Your task to perform on an android device: turn off improve location accuracy Image 0: 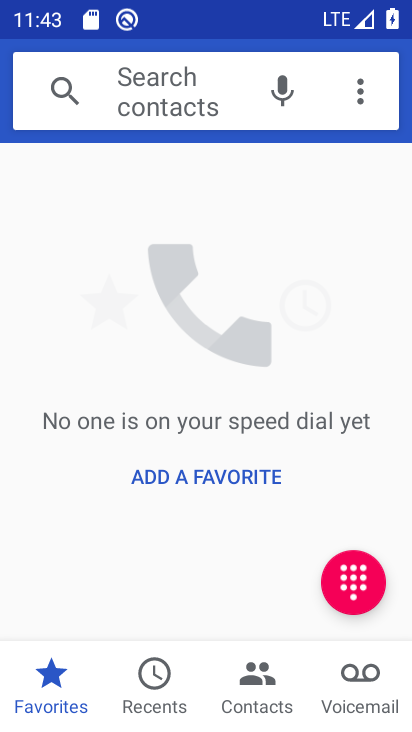
Step 0: press home button
Your task to perform on an android device: turn off improve location accuracy Image 1: 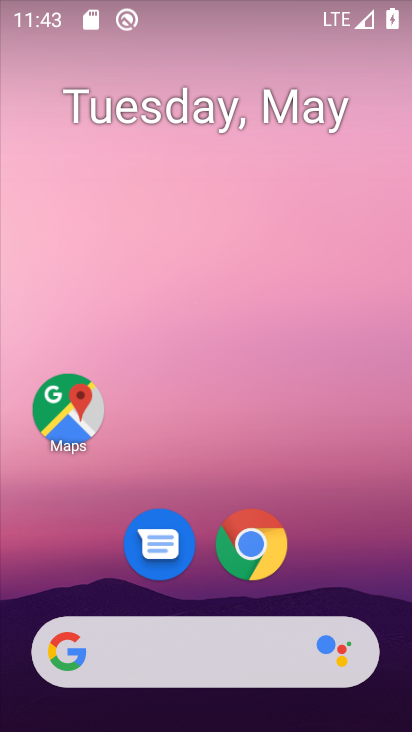
Step 1: drag from (203, 469) to (271, 134)
Your task to perform on an android device: turn off improve location accuracy Image 2: 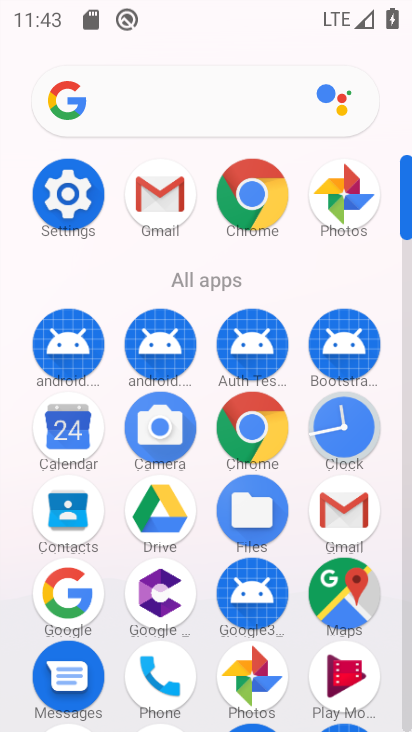
Step 2: drag from (205, 272) to (213, 125)
Your task to perform on an android device: turn off improve location accuracy Image 3: 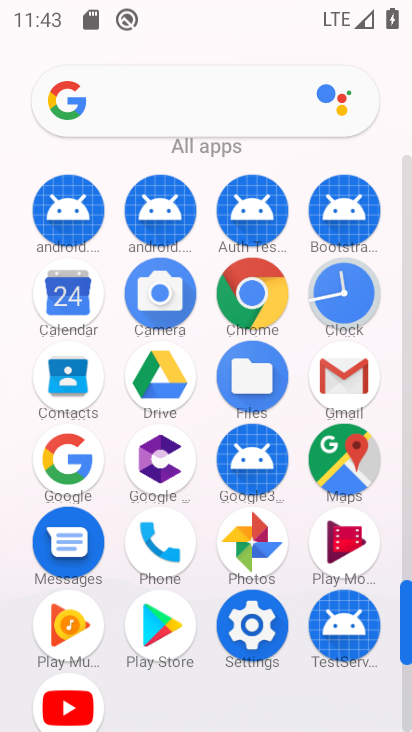
Step 3: click (246, 639)
Your task to perform on an android device: turn off improve location accuracy Image 4: 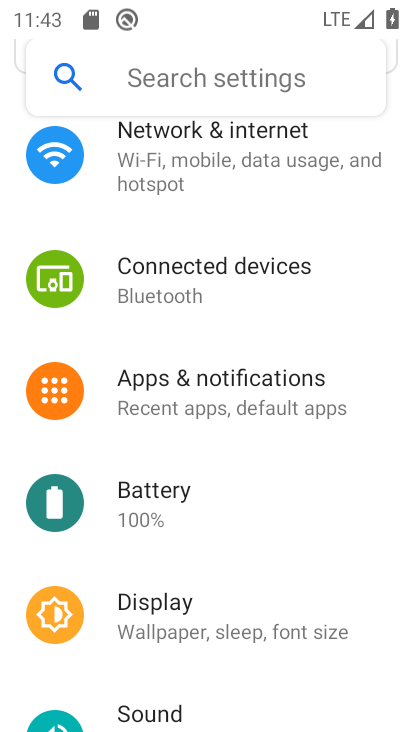
Step 4: drag from (107, 591) to (328, 189)
Your task to perform on an android device: turn off improve location accuracy Image 5: 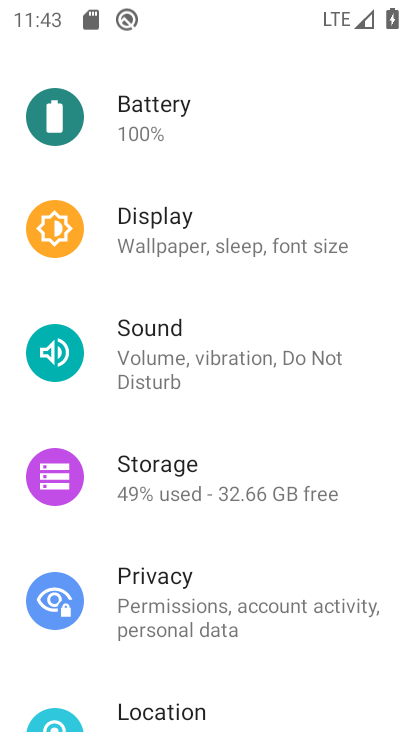
Step 5: drag from (196, 671) to (256, 248)
Your task to perform on an android device: turn off improve location accuracy Image 6: 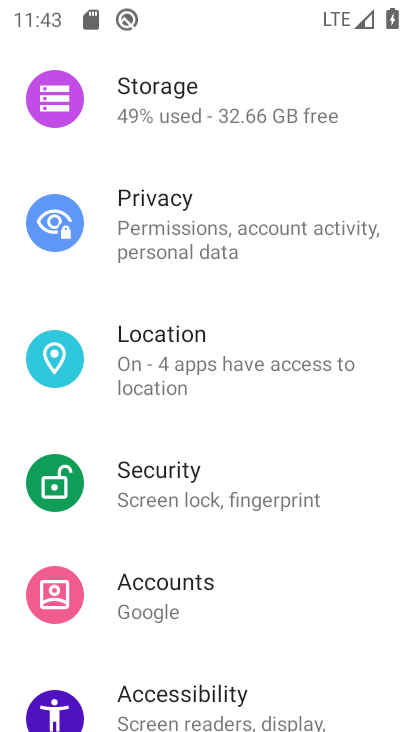
Step 6: click (208, 377)
Your task to perform on an android device: turn off improve location accuracy Image 7: 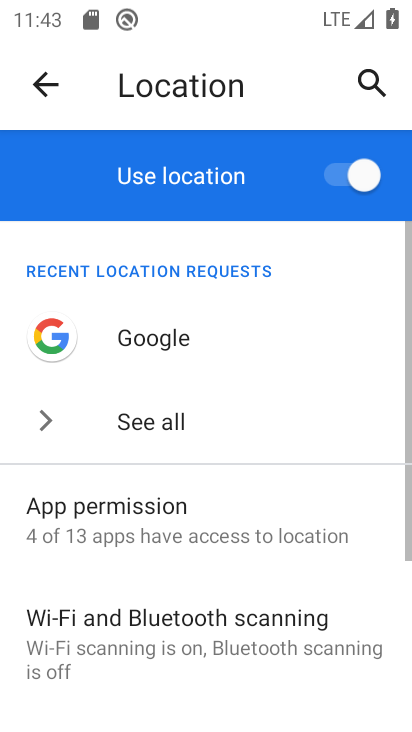
Step 7: click (372, 184)
Your task to perform on an android device: turn off improve location accuracy Image 8: 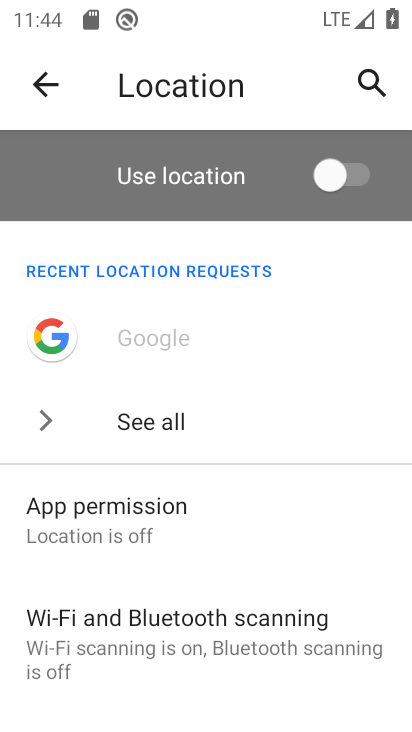
Step 8: click (356, 188)
Your task to perform on an android device: turn off improve location accuracy Image 9: 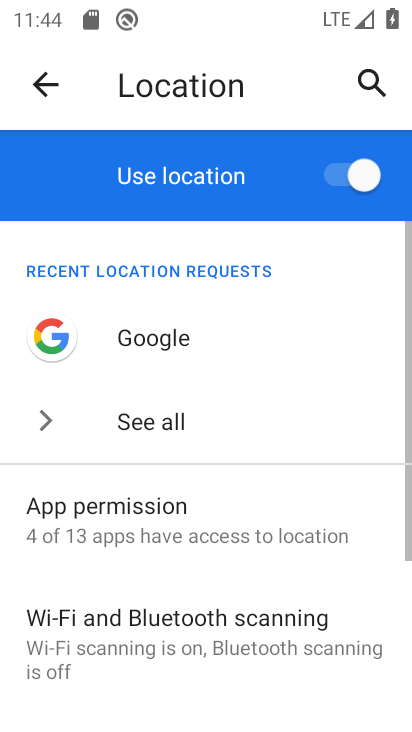
Step 9: drag from (222, 539) to (214, 209)
Your task to perform on an android device: turn off improve location accuracy Image 10: 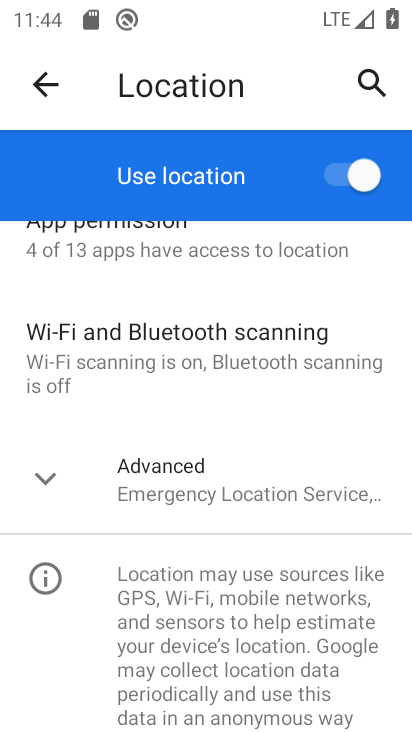
Step 10: click (199, 479)
Your task to perform on an android device: turn off improve location accuracy Image 11: 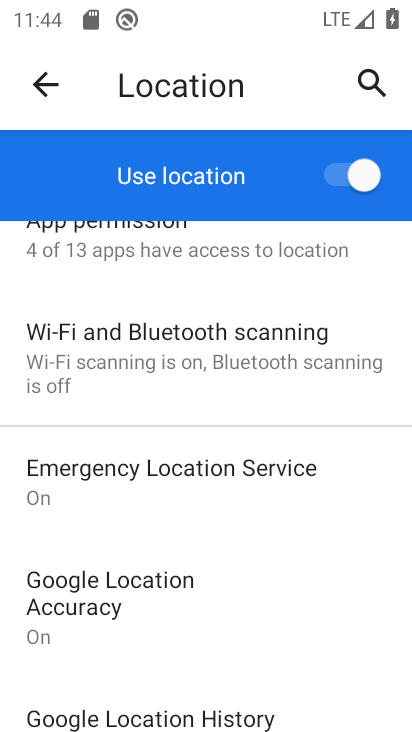
Step 11: click (192, 618)
Your task to perform on an android device: turn off improve location accuracy Image 12: 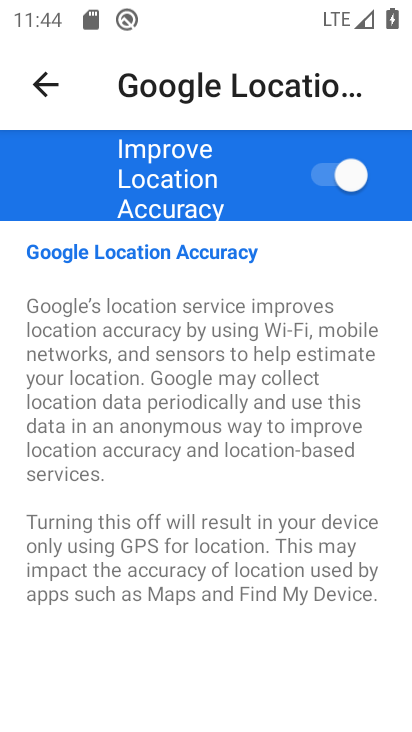
Step 12: click (335, 182)
Your task to perform on an android device: turn off improve location accuracy Image 13: 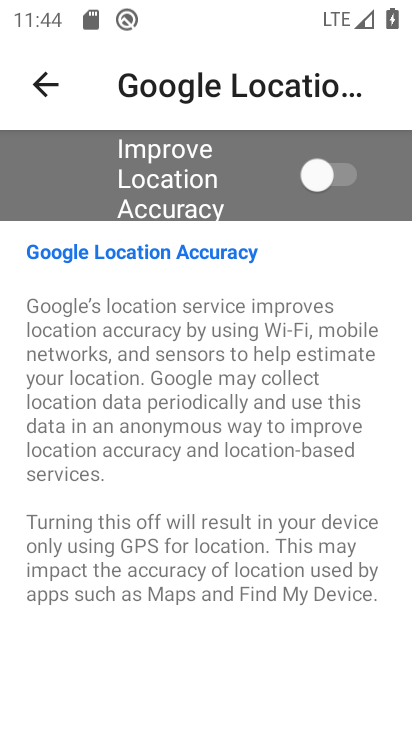
Step 13: task complete